Your task to perform on an android device: add a contact Image 0: 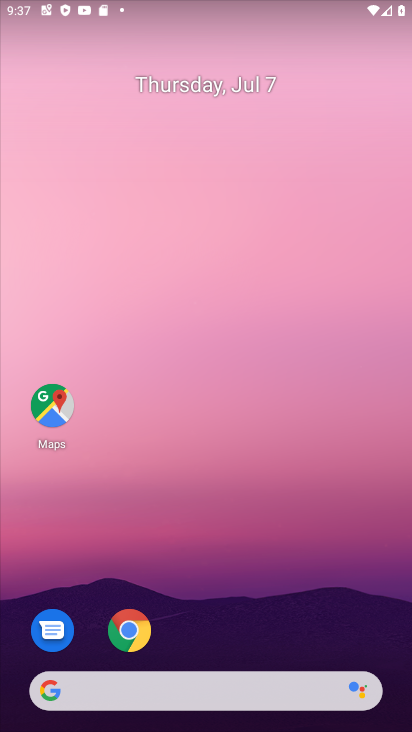
Step 0: drag from (194, 530) to (185, 186)
Your task to perform on an android device: add a contact Image 1: 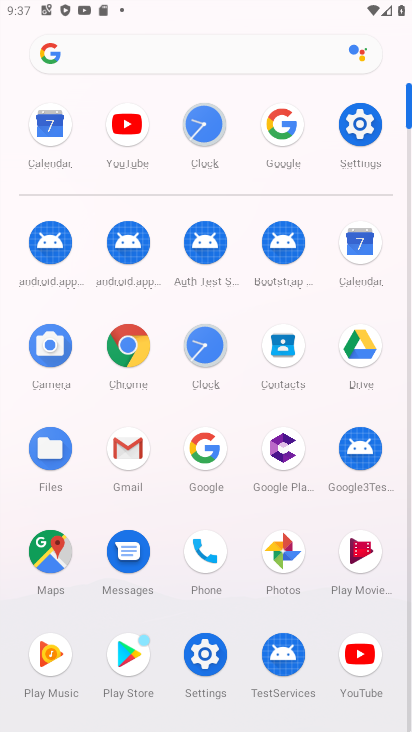
Step 1: click (266, 357)
Your task to perform on an android device: add a contact Image 2: 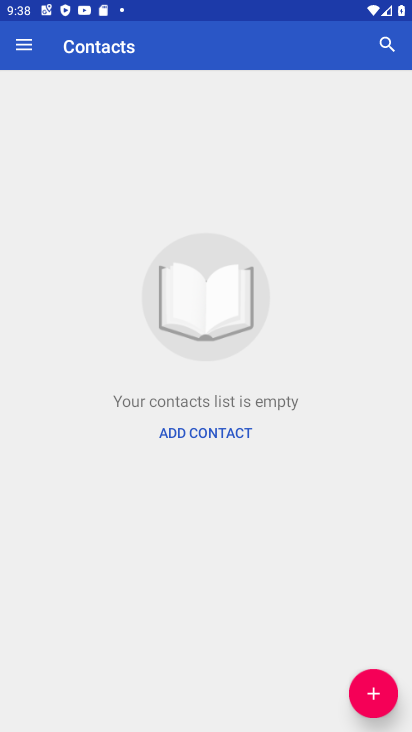
Step 2: click (372, 697)
Your task to perform on an android device: add a contact Image 3: 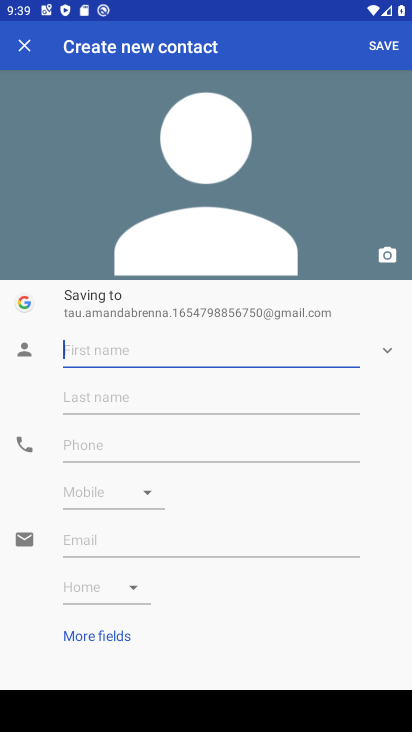
Step 3: type "gfhj"
Your task to perform on an android device: add a contact Image 4: 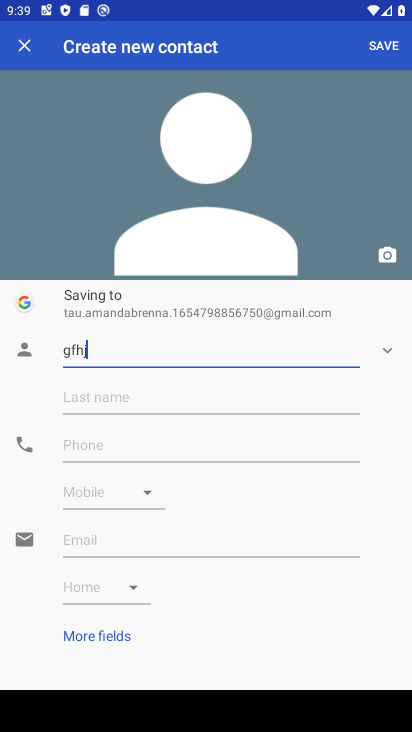
Step 4: click (114, 453)
Your task to perform on an android device: add a contact Image 5: 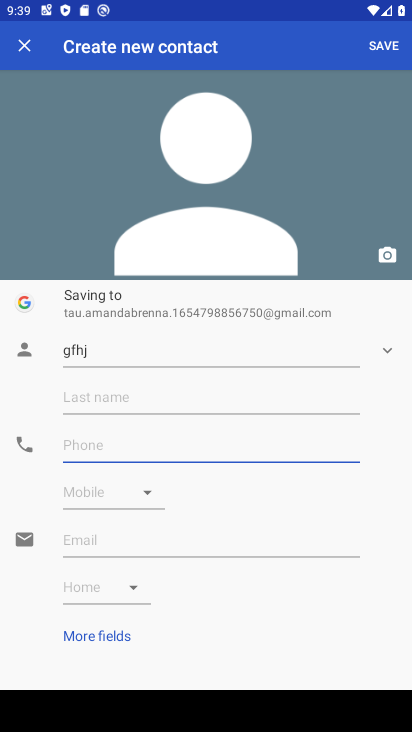
Step 5: type "5675456668"
Your task to perform on an android device: add a contact Image 6: 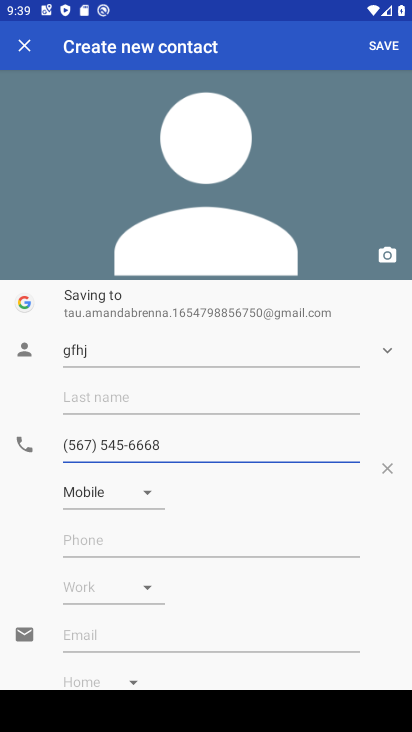
Step 6: click (387, 51)
Your task to perform on an android device: add a contact Image 7: 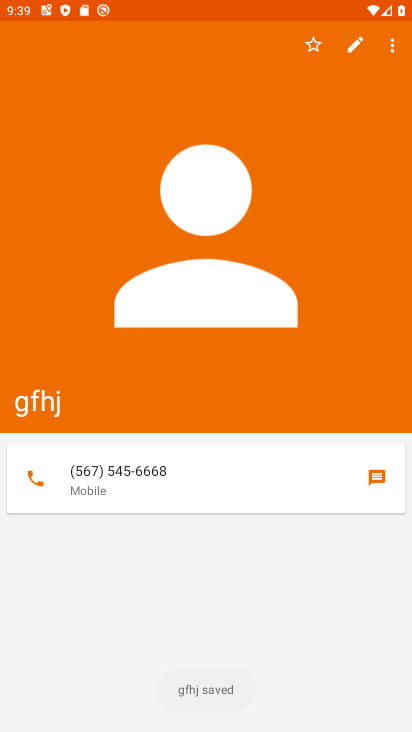
Step 7: task complete